Your task to perform on an android device: set the stopwatch Image 0: 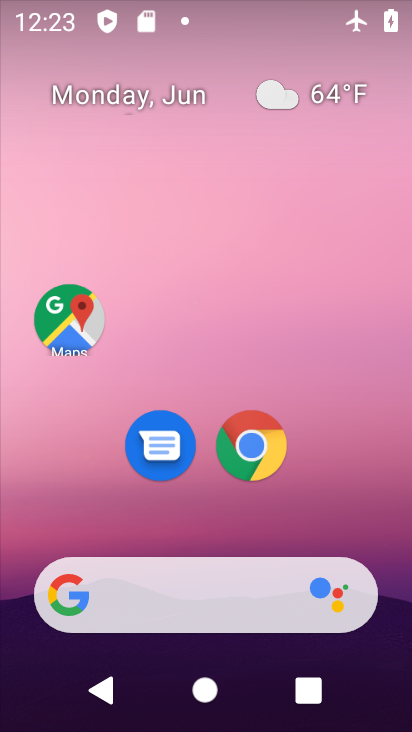
Step 0: drag from (133, 550) to (1, 121)
Your task to perform on an android device: set the stopwatch Image 1: 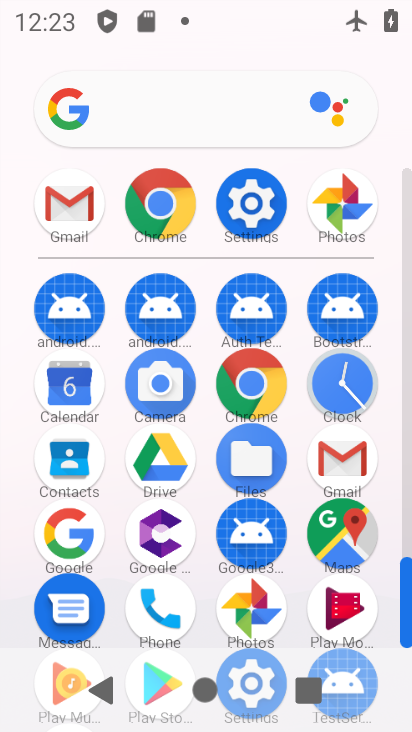
Step 1: click (371, 380)
Your task to perform on an android device: set the stopwatch Image 2: 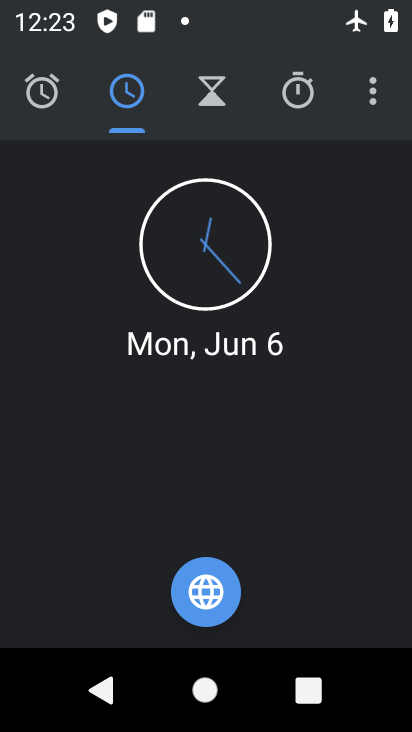
Step 2: task complete